Your task to perform on an android device: toggle show notifications on the lock screen Image 0: 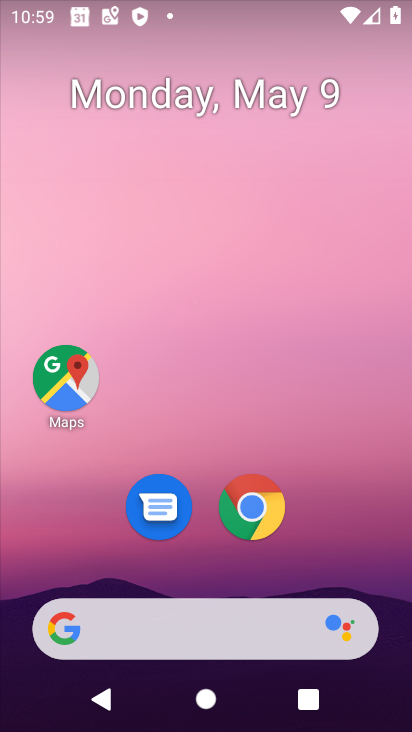
Step 0: drag from (228, 602) to (318, 6)
Your task to perform on an android device: toggle show notifications on the lock screen Image 1: 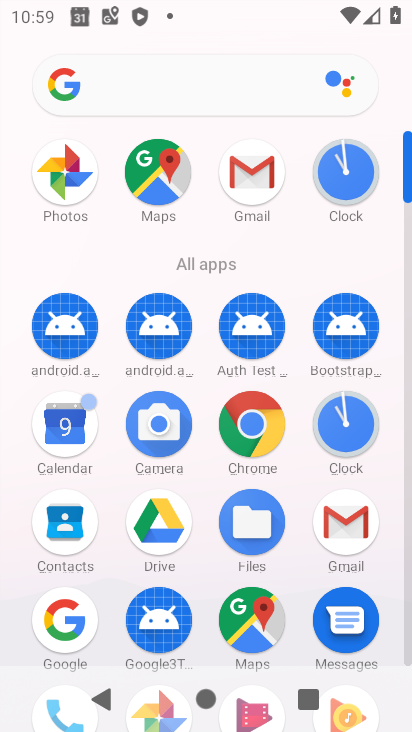
Step 1: drag from (189, 617) to (349, 19)
Your task to perform on an android device: toggle show notifications on the lock screen Image 2: 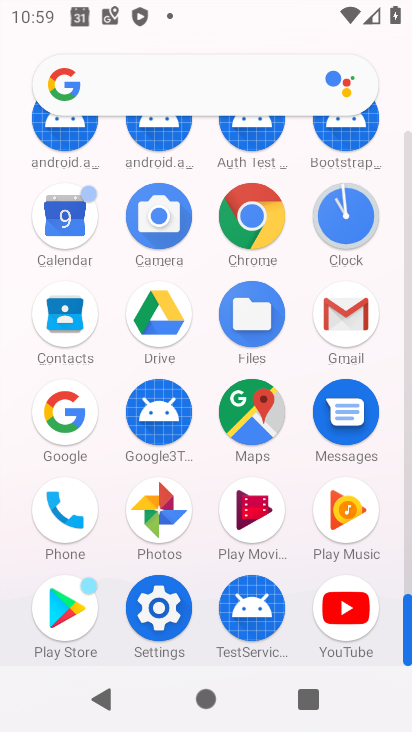
Step 2: click (153, 614)
Your task to perform on an android device: toggle show notifications on the lock screen Image 3: 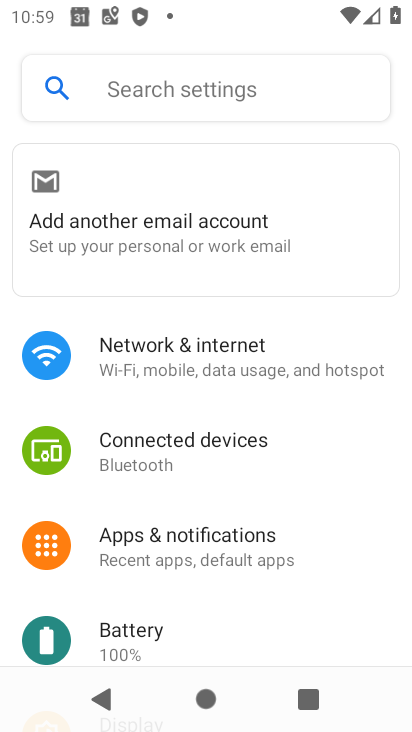
Step 3: click (196, 556)
Your task to perform on an android device: toggle show notifications on the lock screen Image 4: 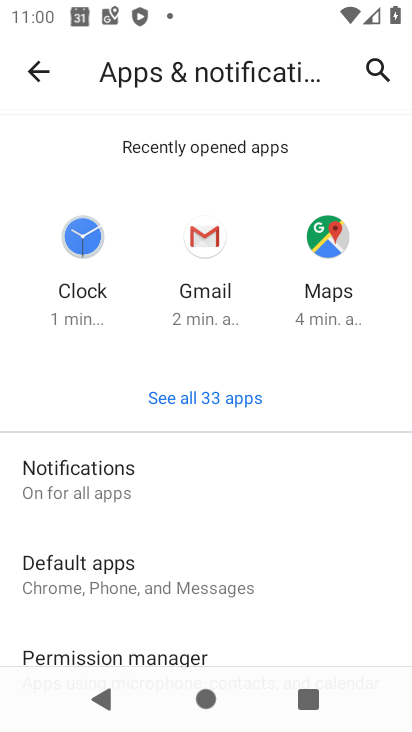
Step 4: click (124, 472)
Your task to perform on an android device: toggle show notifications on the lock screen Image 5: 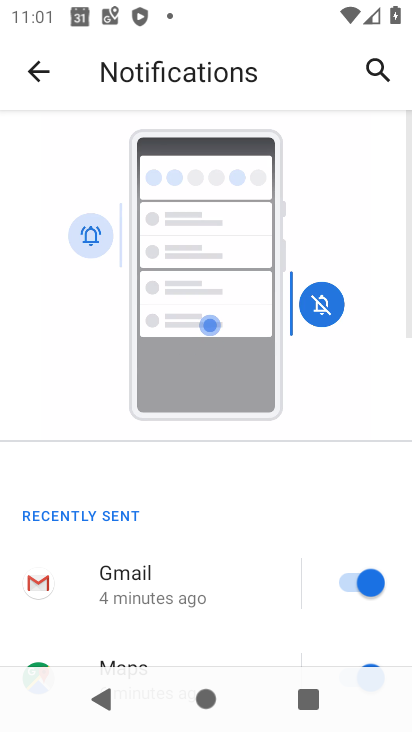
Step 5: drag from (151, 575) to (268, 123)
Your task to perform on an android device: toggle show notifications on the lock screen Image 6: 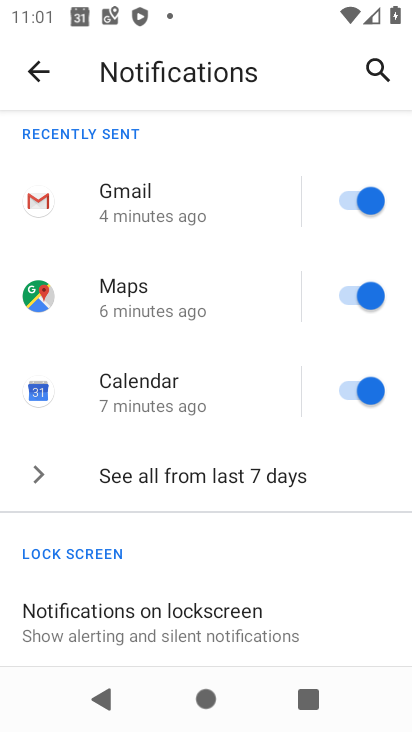
Step 6: click (151, 624)
Your task to perform on an android device: toggle show notifications on the lock screen Image 7: 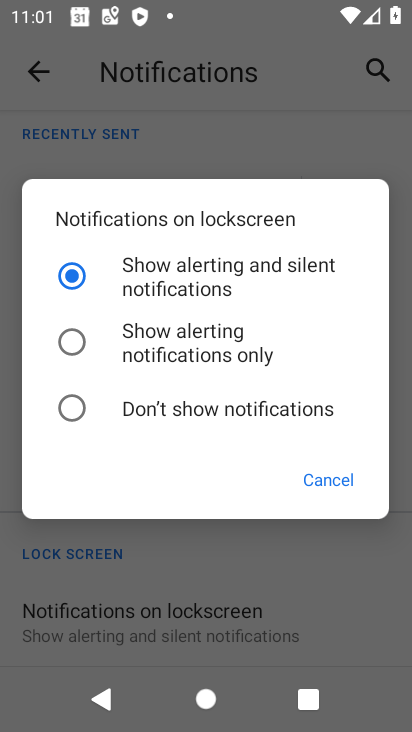
Step 7: click (73, 261)
Your task to perform on an android device: toggle show notifications on the lock screen Image 8: 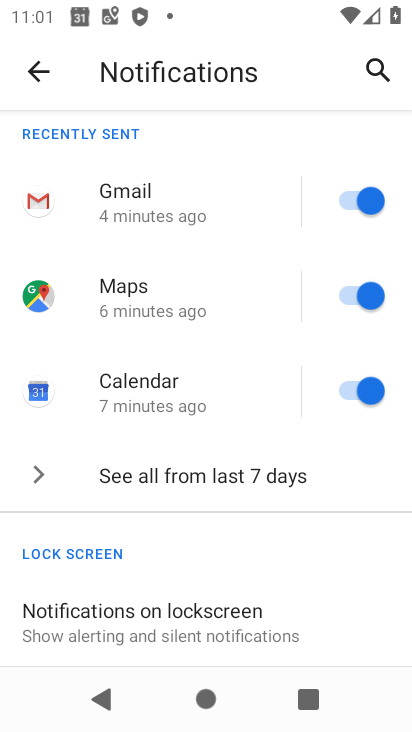
Step 8: task complete